Your task to perform on an android device: change the clock style Image 0: 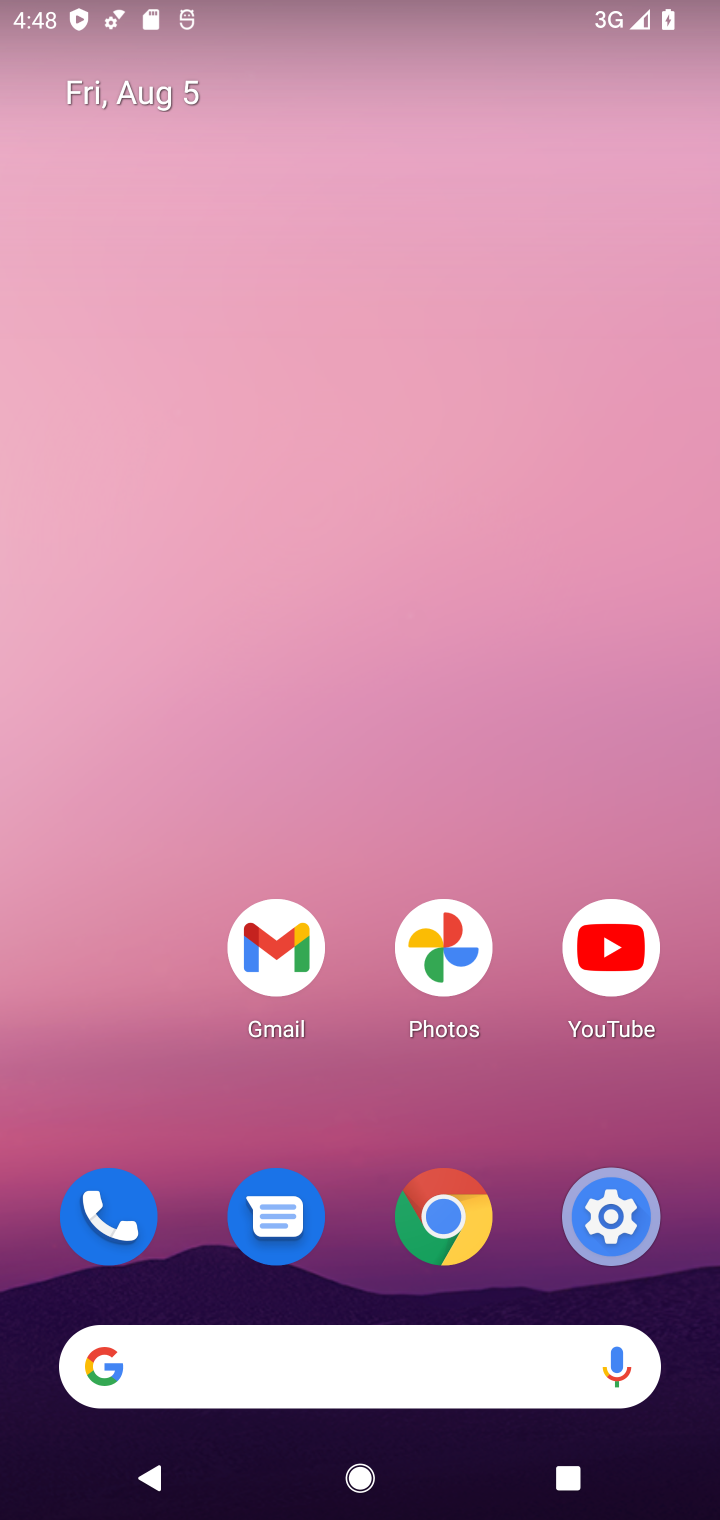
Step 0: drag from (251, 259) to (117, 76)
Your task to perform on an android device: change the clock style Image 1: 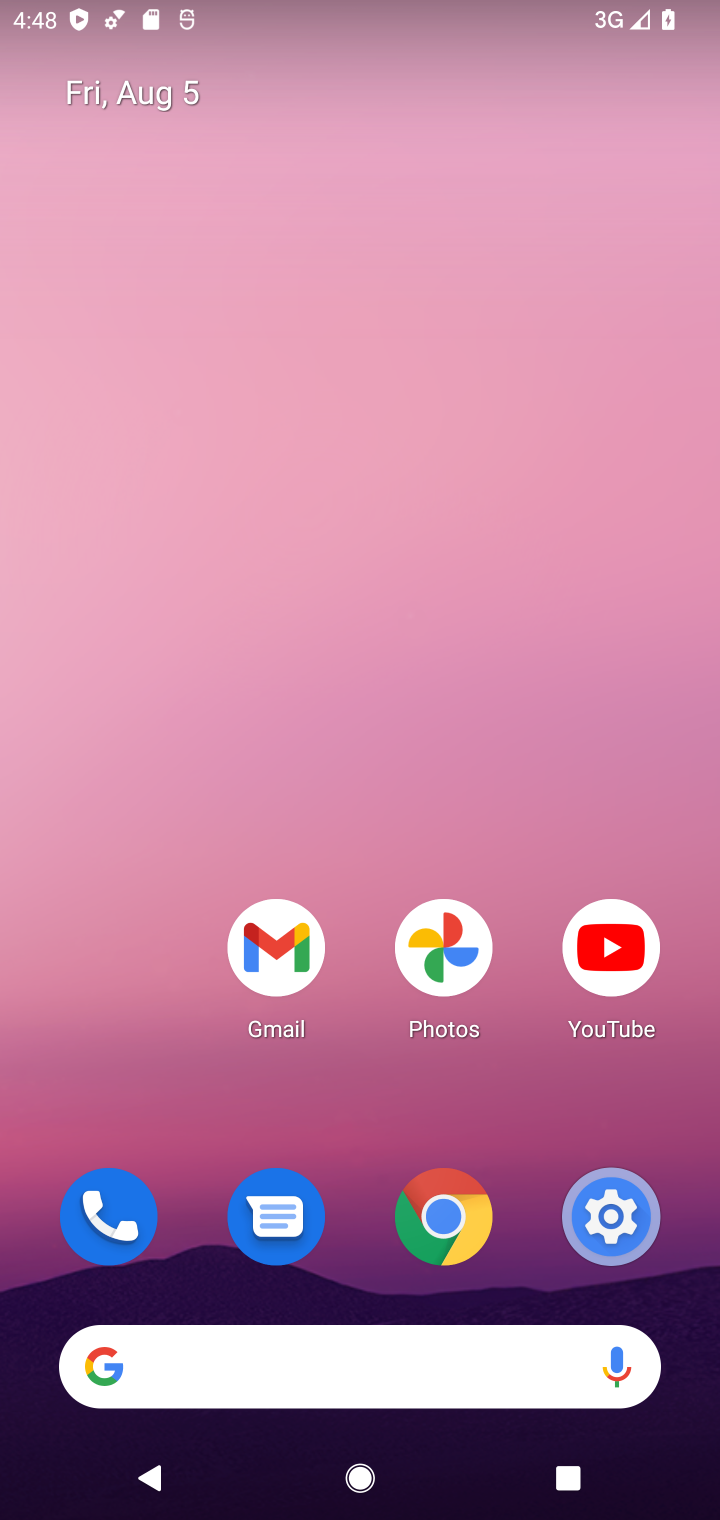
Step 1: drag from (349, 1147) to (309, 245)
Your task to perform on an android device: change the clock style Image 2: 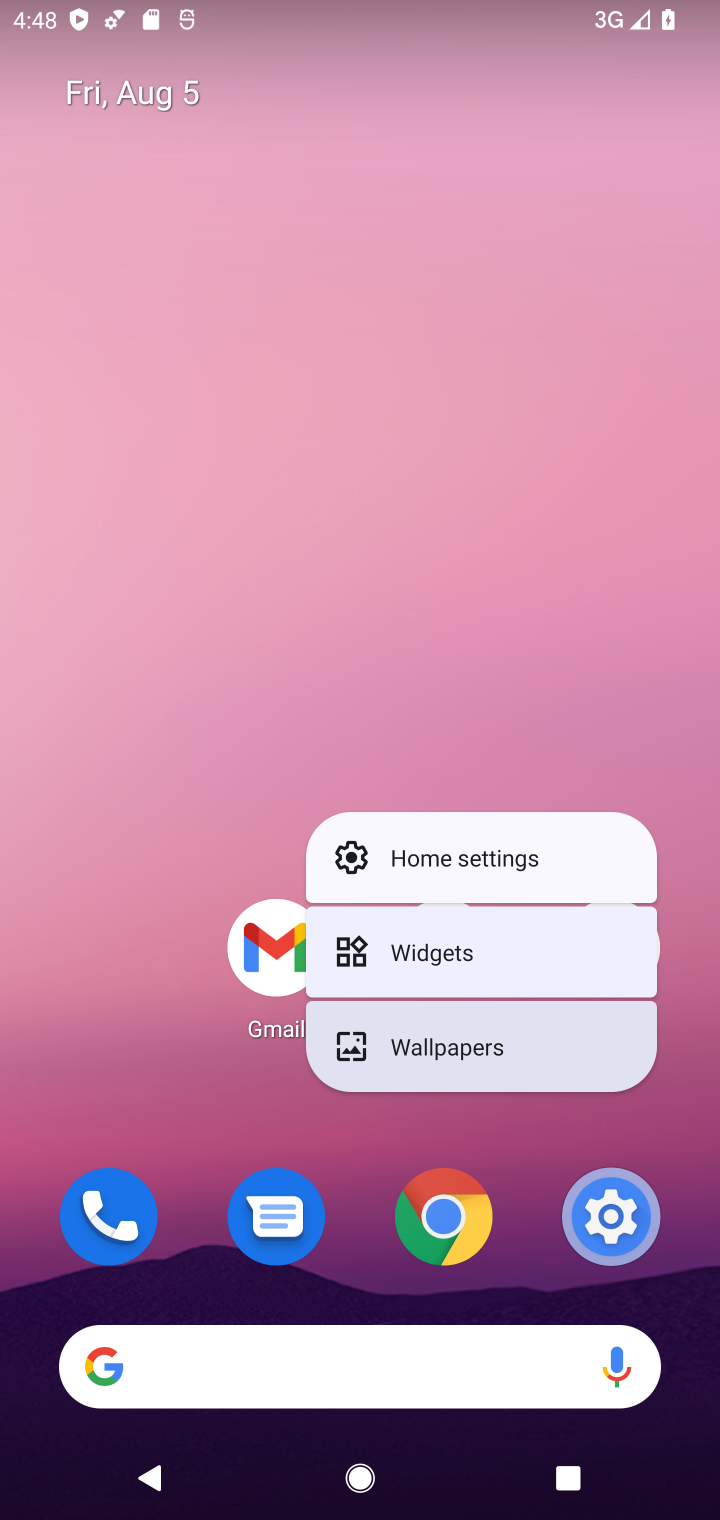
Step 2: click (309, 245)
Your task to perform on an android device: change the clock style Image 3: 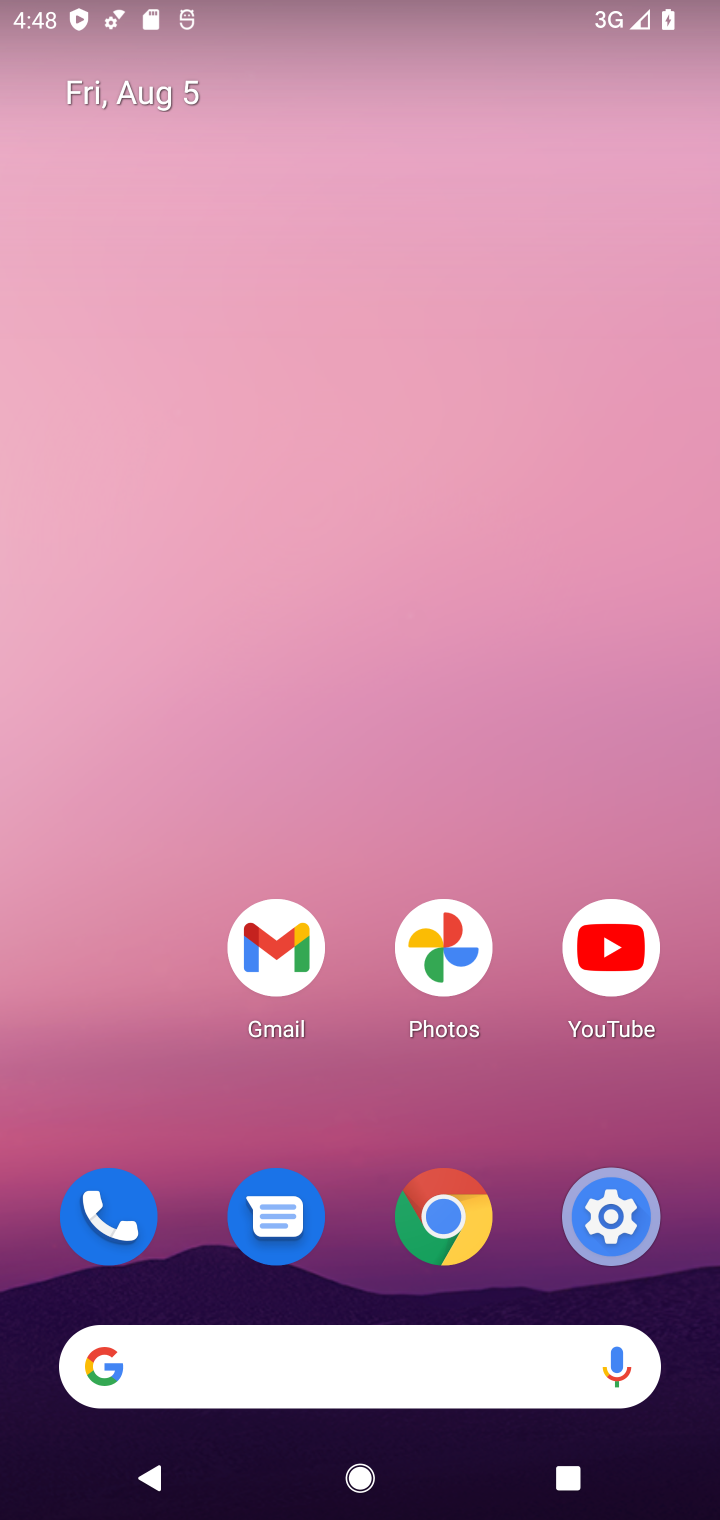
Step 3: drag from (202, 1091) to (284, 19)
Your task to perform on an android device: change the clock style Image 4: 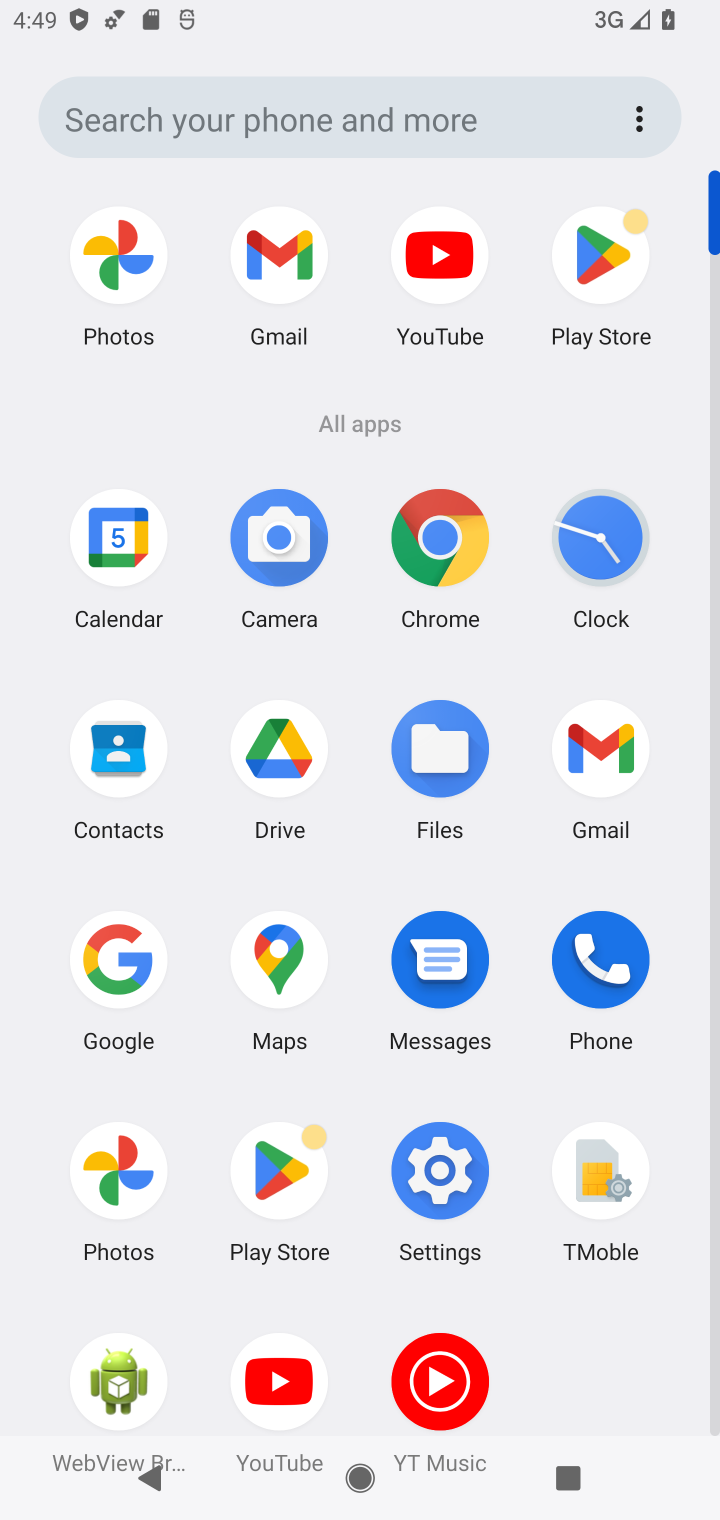
Step 4: click (588, 539)
Your task to perform on an android device: change the clock style Image 5: 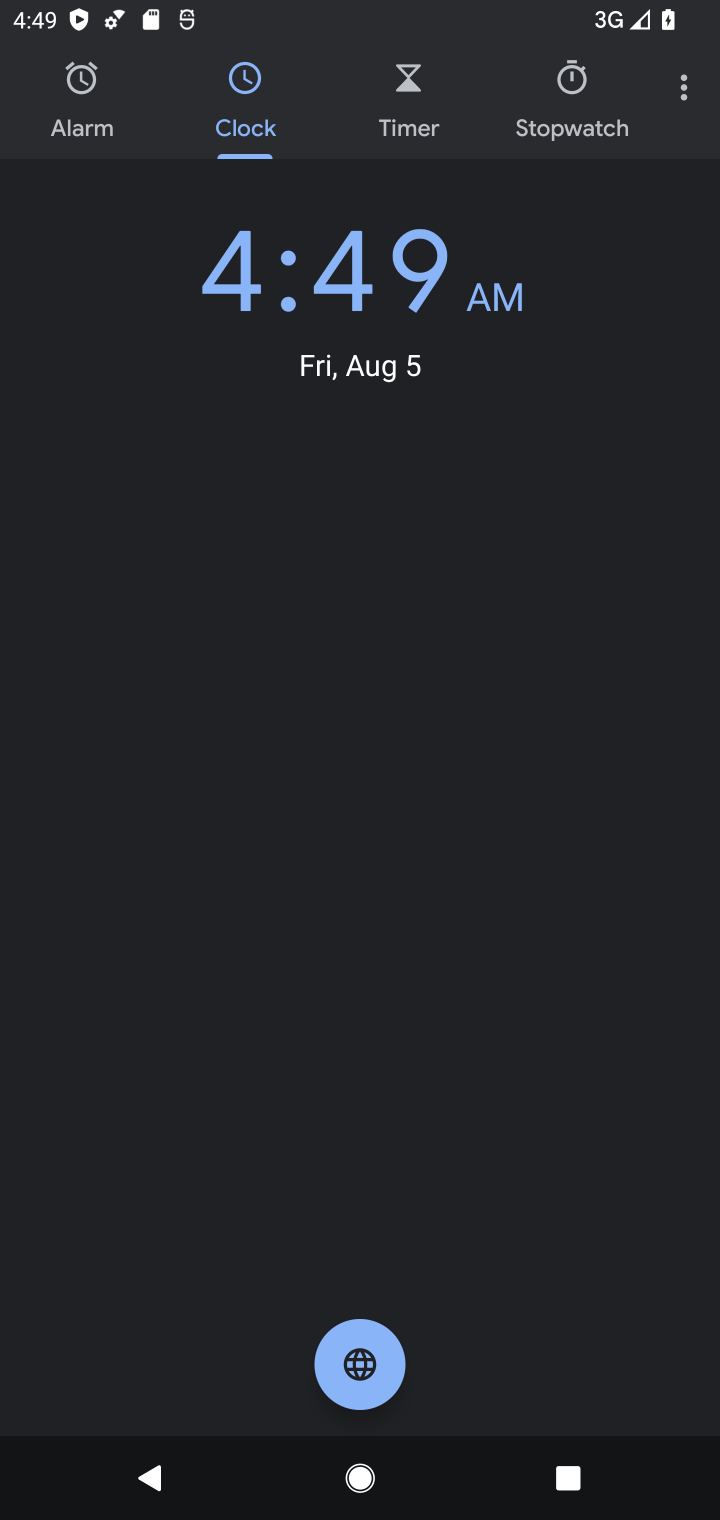
Step 5: click (687, 94)
Your task to perform on an android device: change the clock style Image 6: 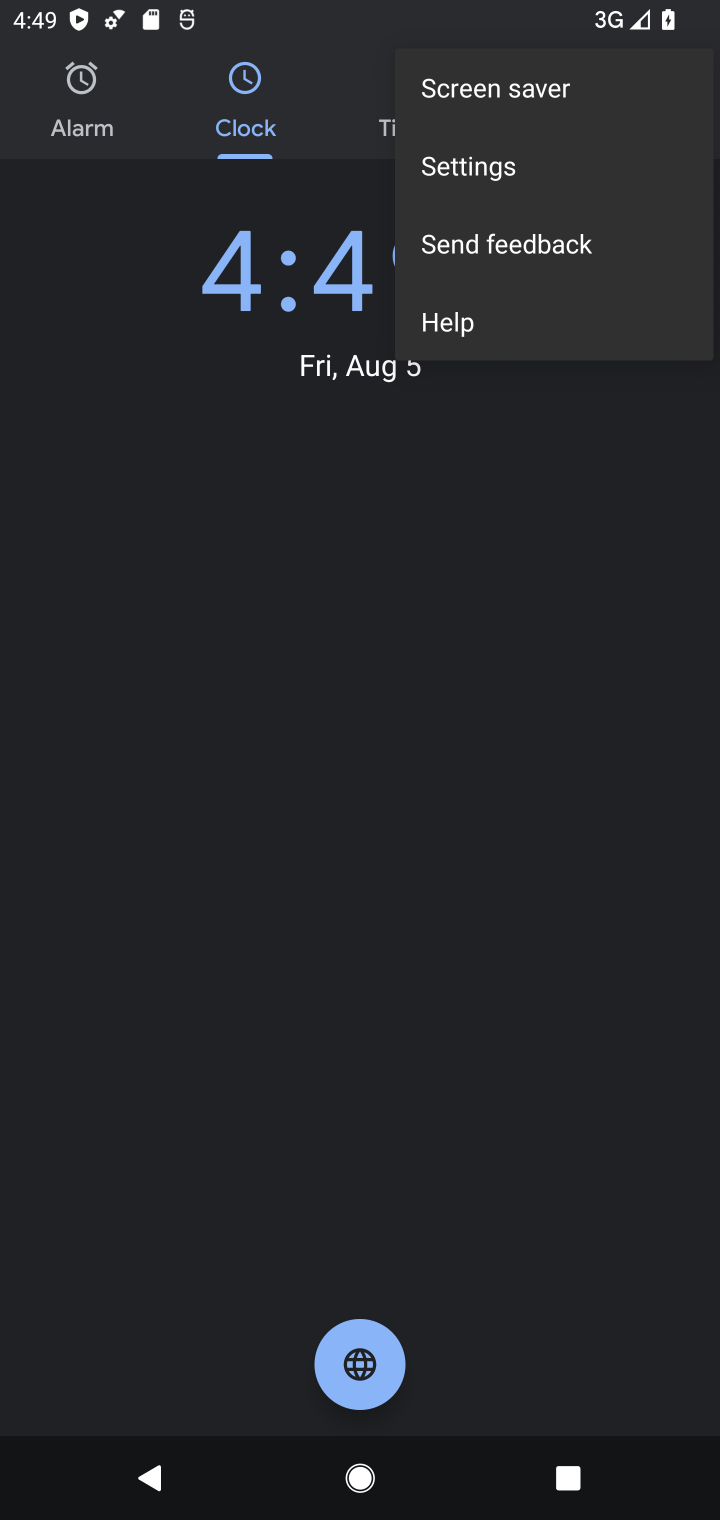
Step 6: click (539, 167)
Your task to perform on an android device: change the clock style Image 7: 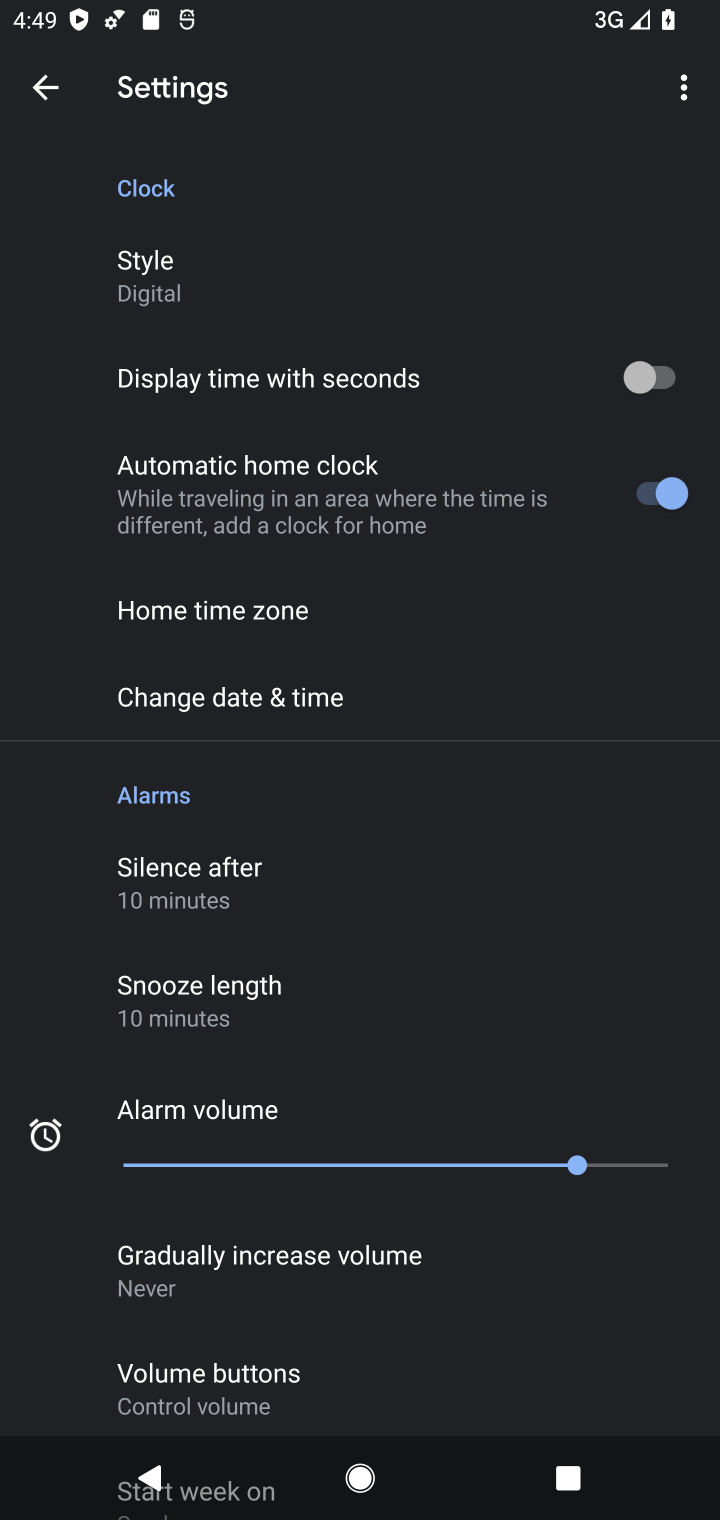
Step 7: click (210, 301)
Your task to perform on an android device: change the clock style Image 8: 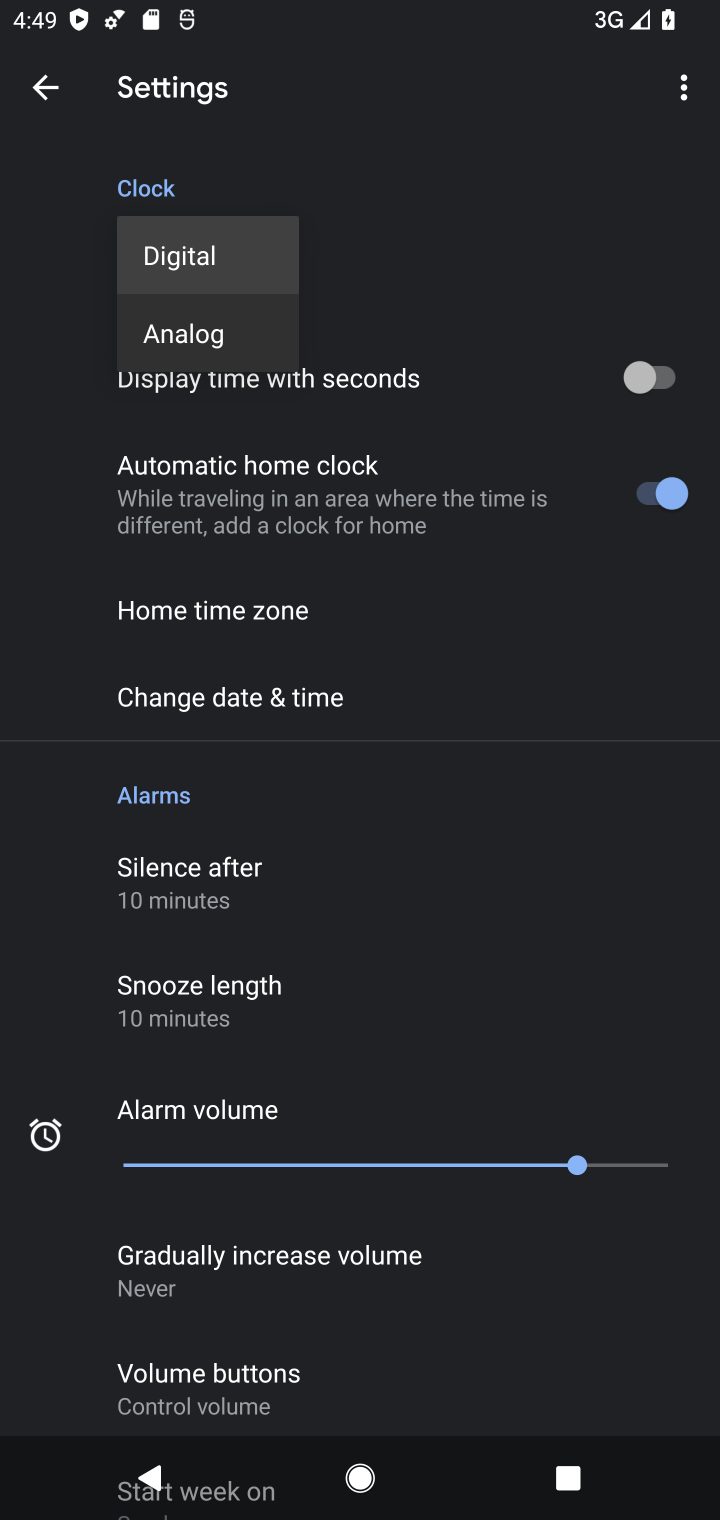
Step 8: click (156, 338)
Your task to perform on an android device: change the clock style Image 9: 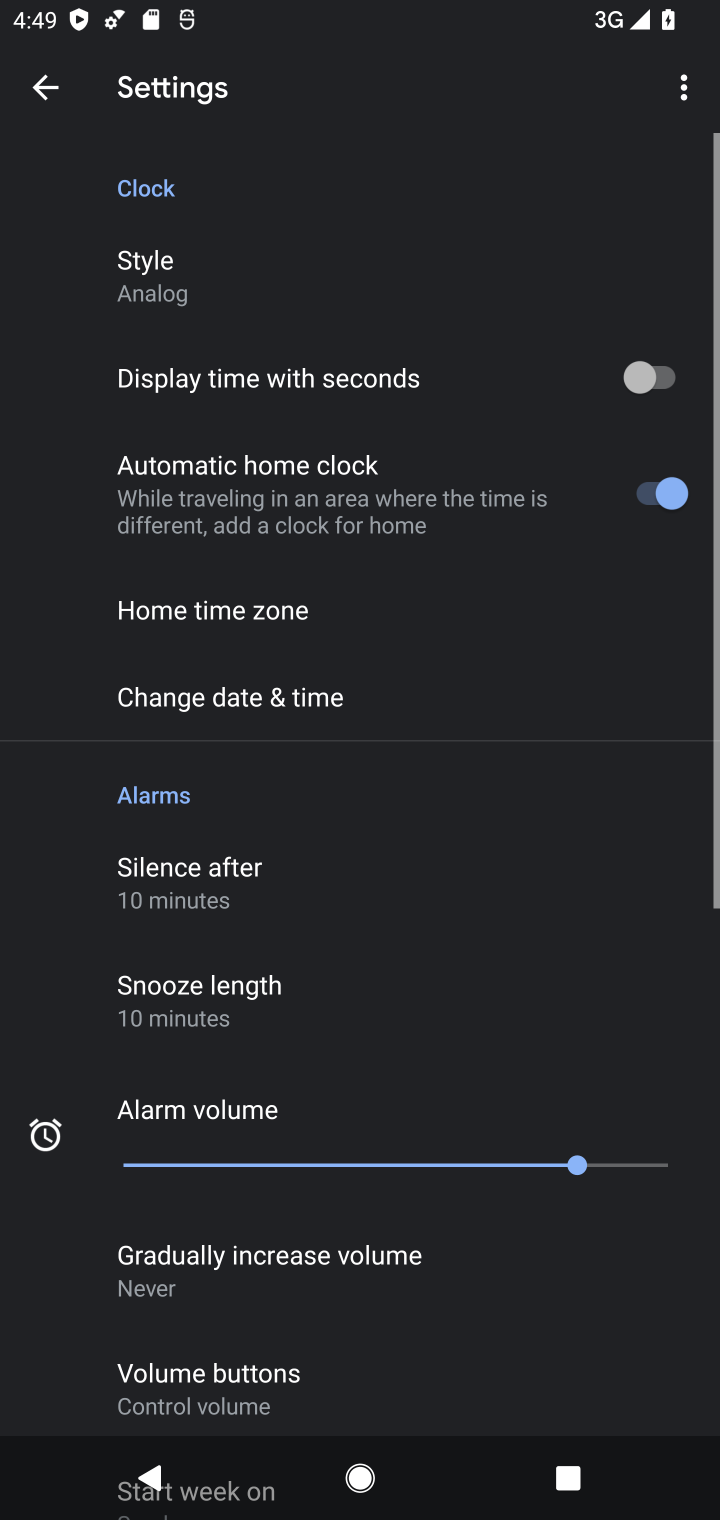
Step 9: task complete